Your task to perform on an android device: Open Google Chrome and click the shortcut for Amazon.com Image 0: 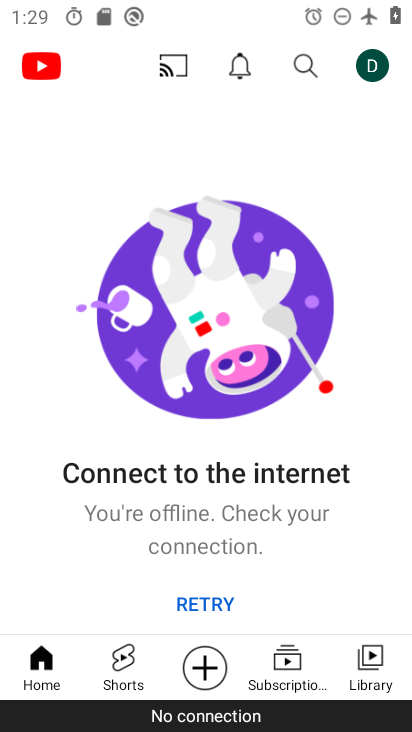
Step 0: press home button
Your task to perform on an android device: Open Google Chrome and click the shortcut for Amazon.com Image 1: 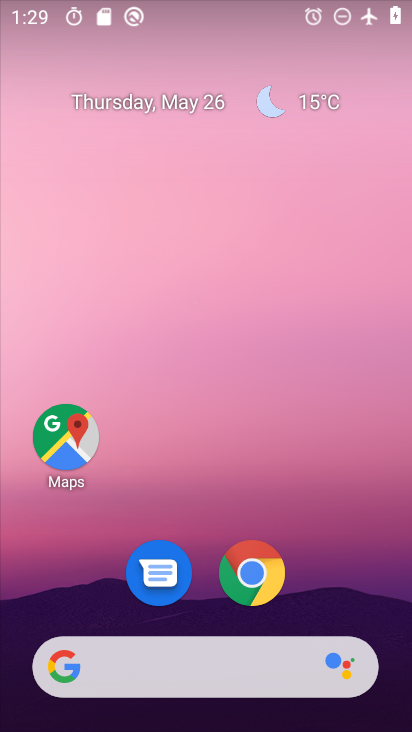
Step 1: click (238, 579)
Your task to perform on an android device: Open Google Chrome and click the shortcut for Amazon.com Image 2: 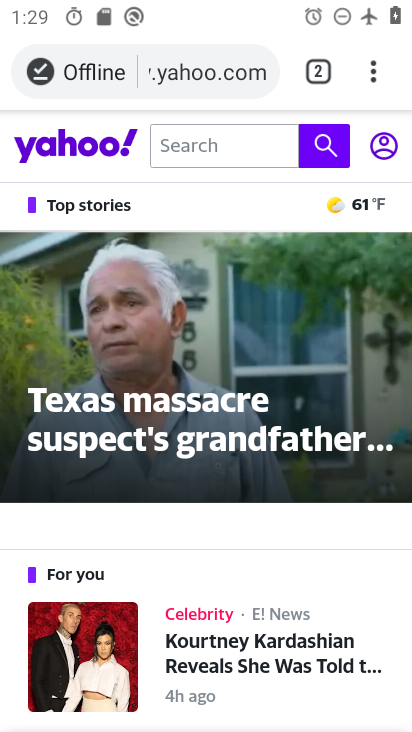
Step 2: click (371, 74)
Your task to perform on an android device: Open Google Chrome and click the shortcut for Amazon.com Image 3: 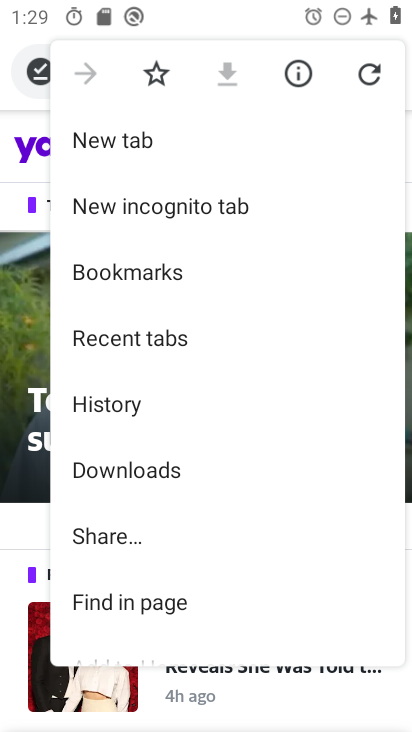
Step 3: click (140, 148)
Your task to perform on an android device: Open Google Chrome and click the shortcut for Amazon.com Image 4: 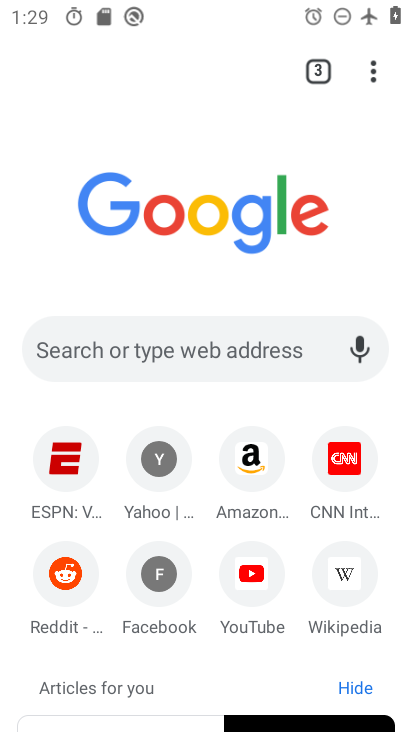
Step 4: click (256, 472)
Your task to perform on an android device: Open Google Chrome and click the shortcut for Amazon.com Image 5: 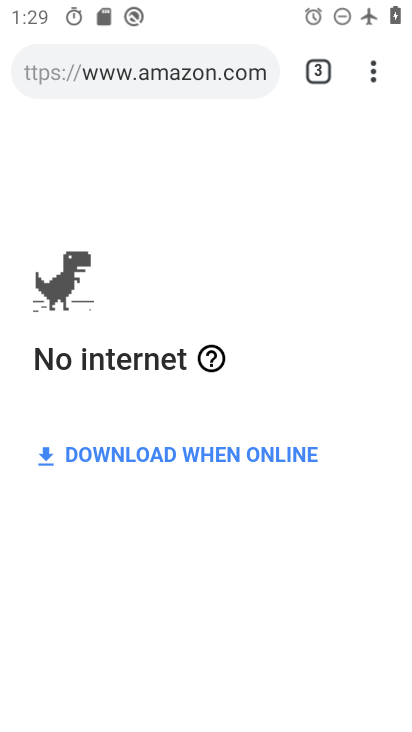
Step 5: task complete